Your task to perform on an android device: Open Google Maps Image 0: 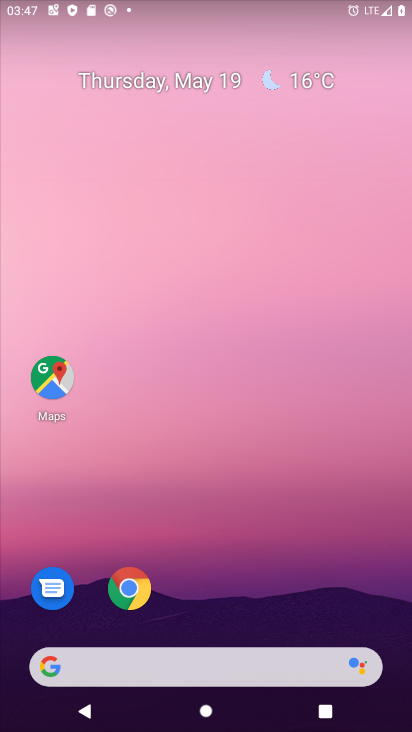
Step 0: click (60, 374)
Your task to perform on an android device: Open Google Maps Image 1: 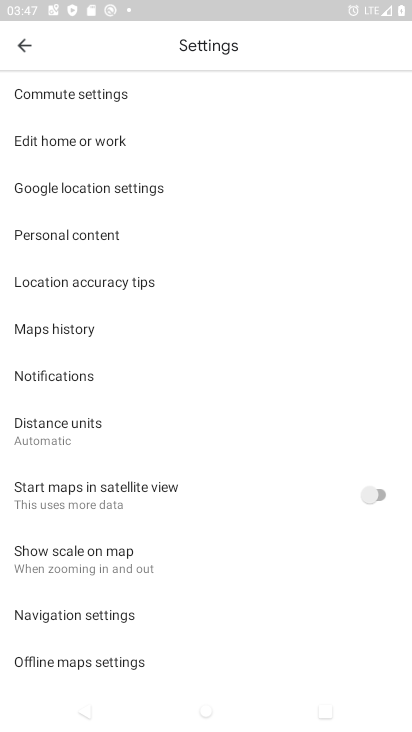
Step 1: task complete